Your task to perform on an android device: Open Google Chrome Image 0: 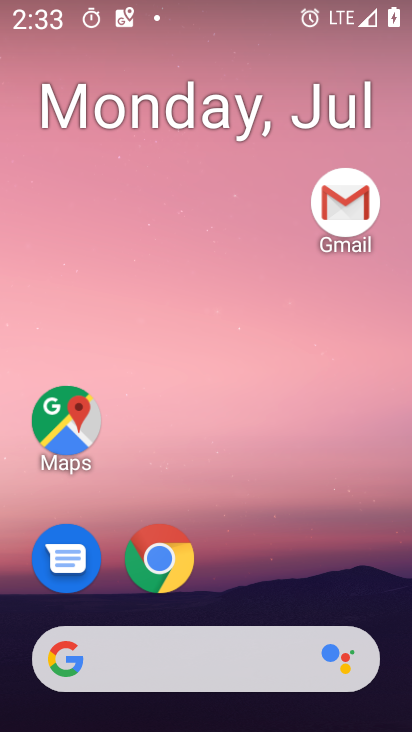
Step 0: drag from (351, 578) to (352, 99)
Your task to perform on an android device: Open Google Chrome Image 1: 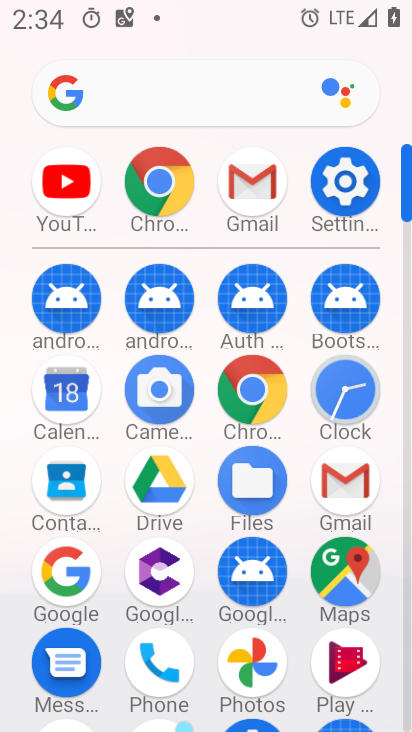
Step 1: click (266, 383)
Your task to perform on an android device: Open Google Chrome Image 2: 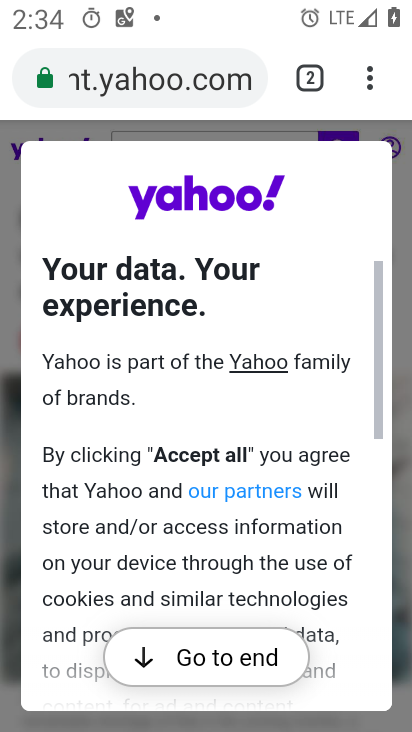
Step 2: task complete